Your task to perform on an android device: turn off notifications settings in the gmail app Image 0: 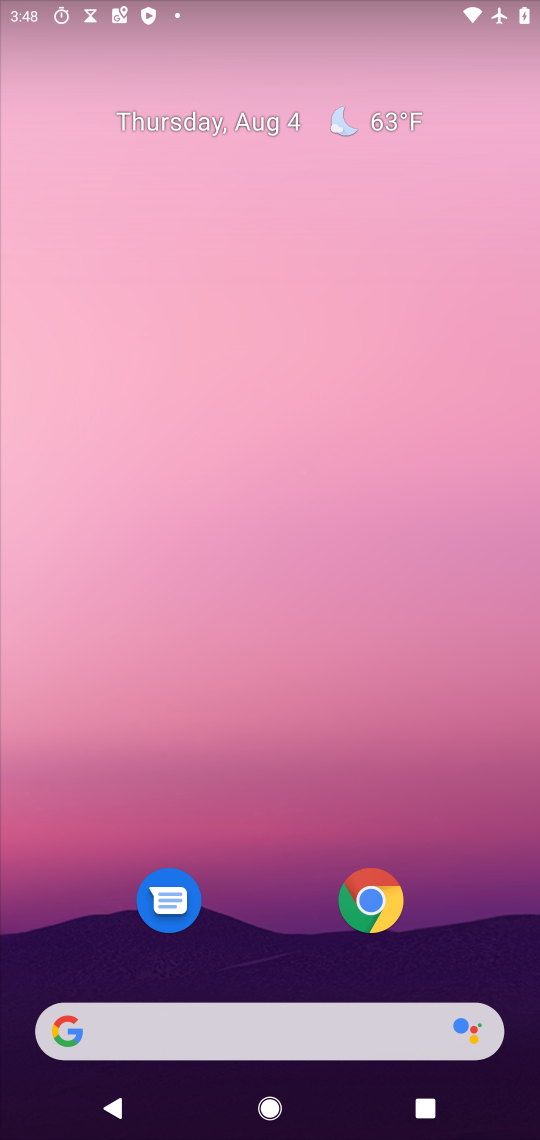
Step 0: drag from (496, 950) to (352, 9)
Your task to perform on an android device: turn off notifications settings in the gmail app Image 1: 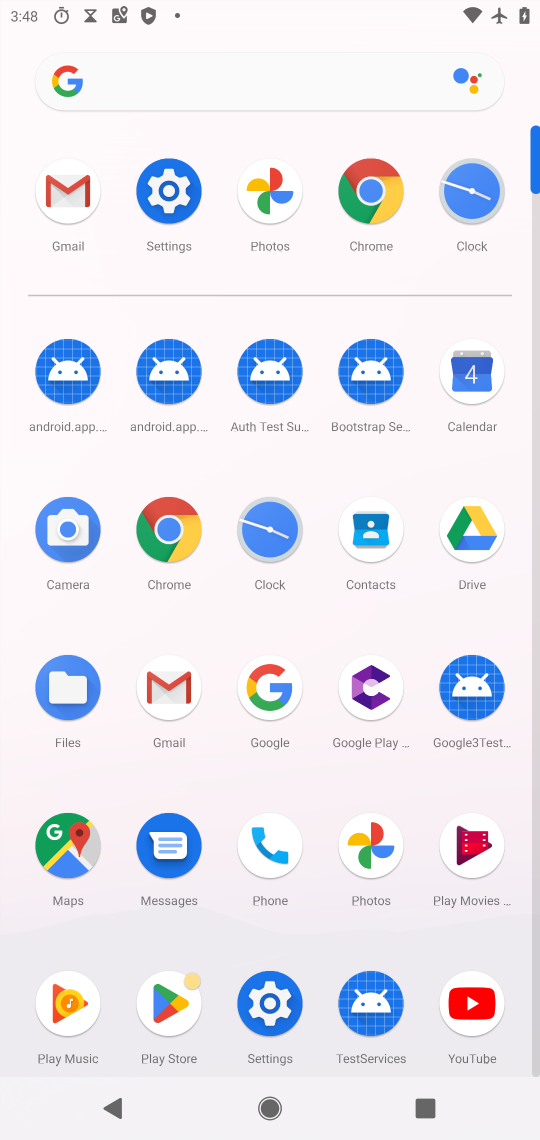
Step 1: click (60, 229)
Your task to perform on an android device: turn off notifications settings in the gmail app Image 2: 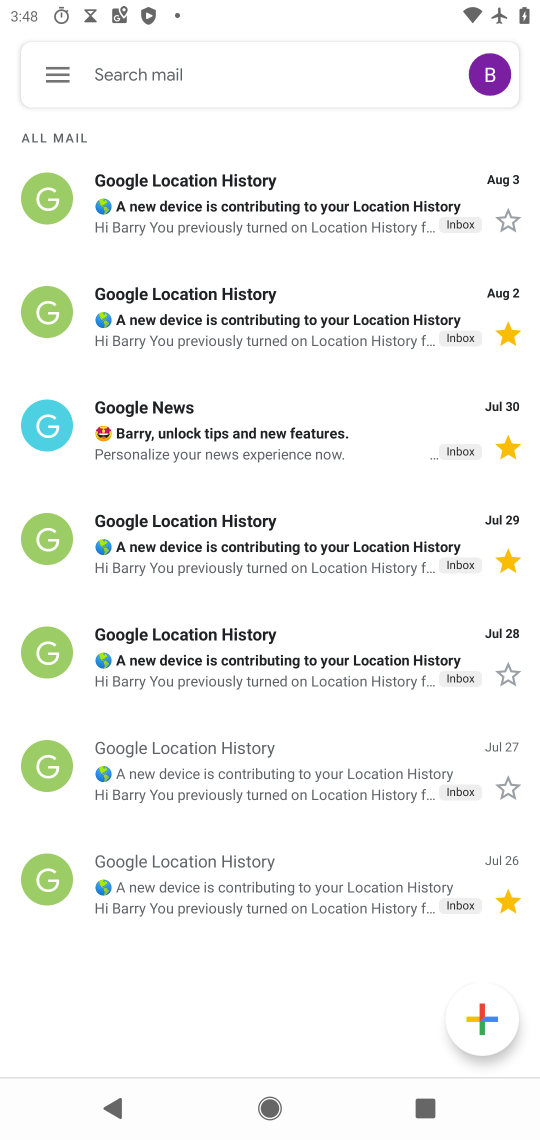
Step 2: click (63, 69)
Your task to perform on an android device: turn off notifications settings in the gmail app Image 3: 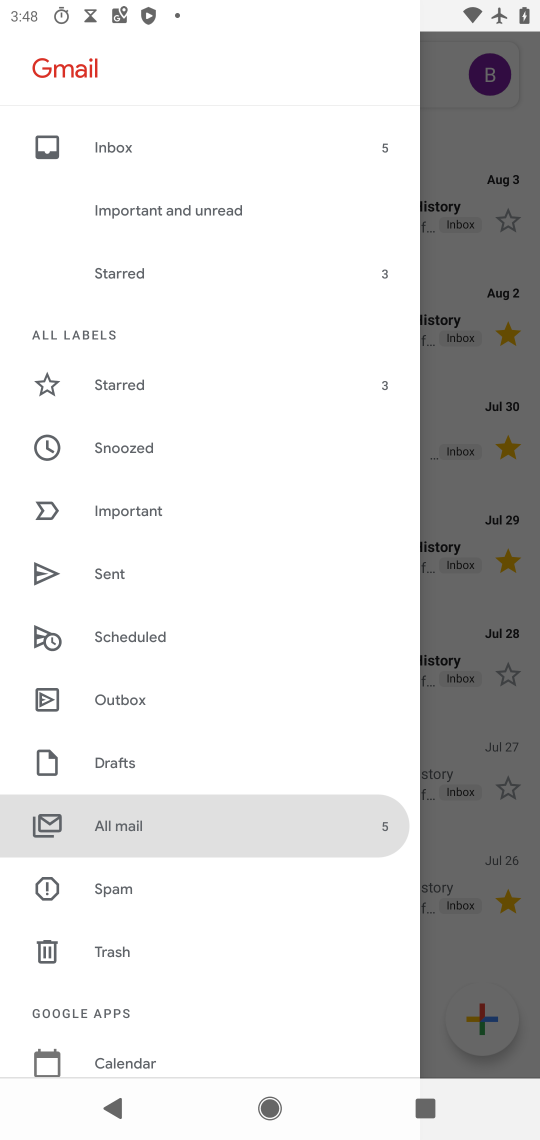
Step 3: drag from (136, 1004) to (139, 311)
Your task to perform on an android device: turn off notifications settings in the gmail app Image 4: 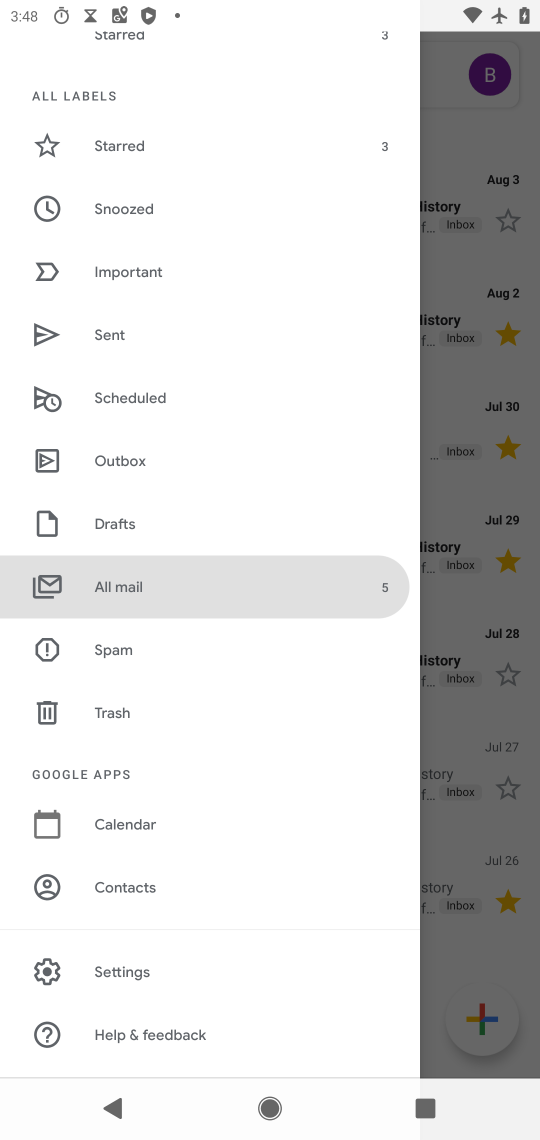
Step 4: click (168, 966)
Your task to perform on an android device: turn off notifications settings in the gmail app Image 5: 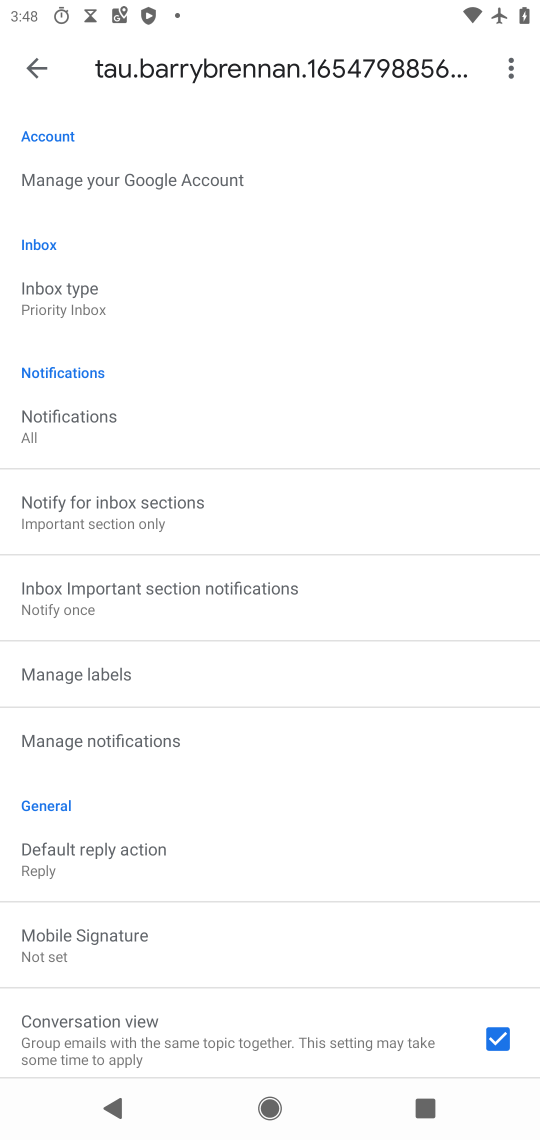
Step 5: click (189, 750)
Your task to perform on an android device: turn off notifications settings in the gmail app Image 6: 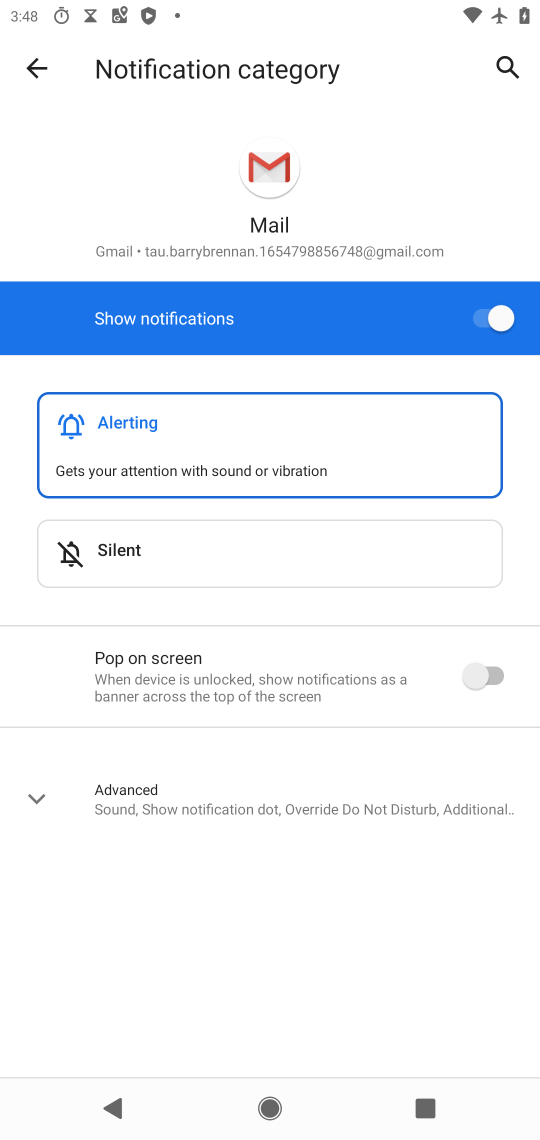
Step 6: click (318, 783)
Your task to perform on an android device: turn off notifications settings in the gmail app Image 7: 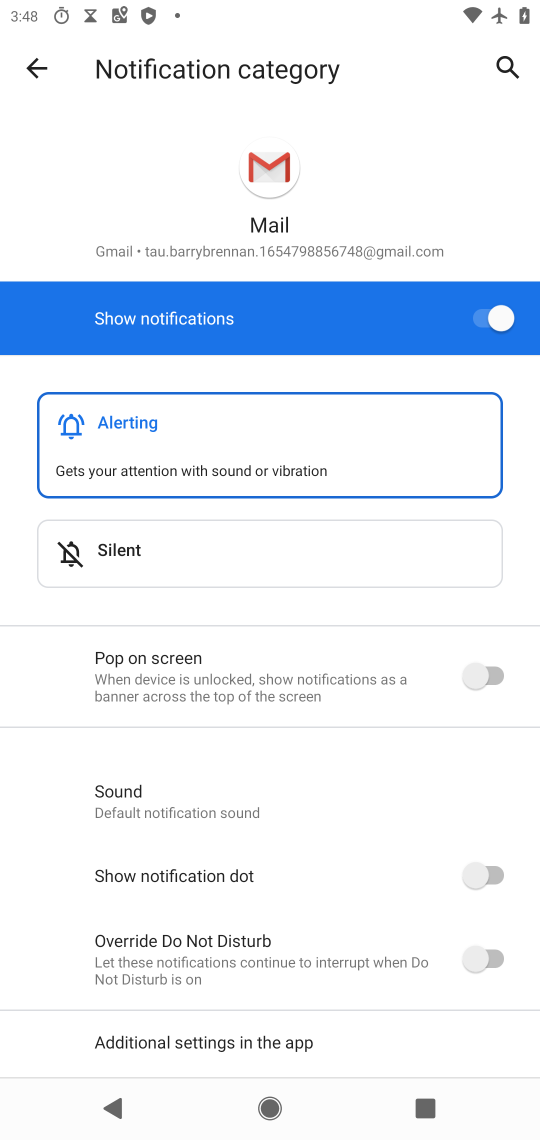
Step 7: task complete